Your task to perform on an android device: When is my next meeting? Image 0: 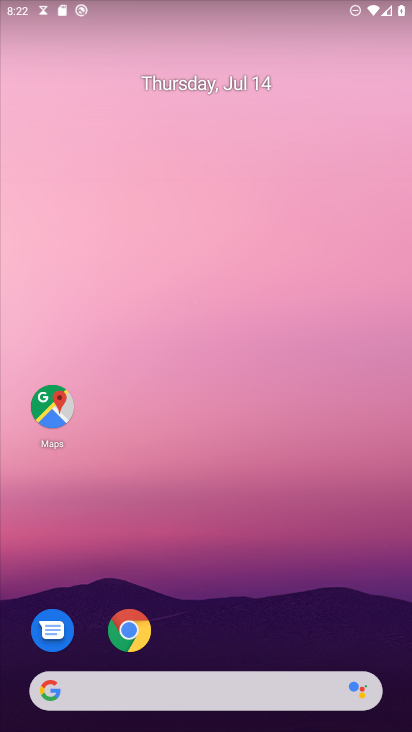
Step 0: drag from (255, 600) to (305, 91)
Your task to perform on an android device: When is my next meeting? Image 1: 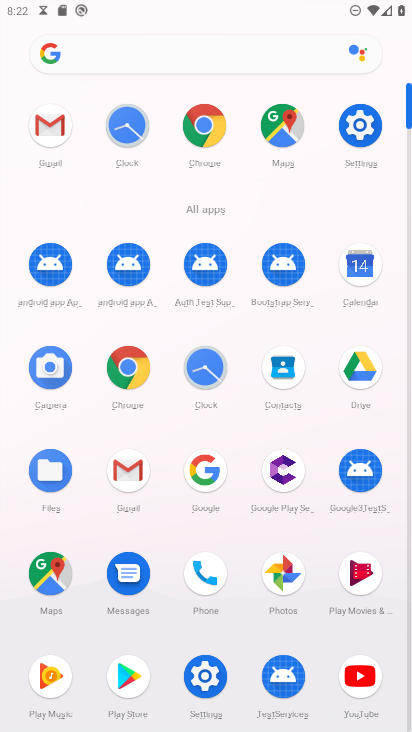
Step 1: click (367, 266)
Your task to perform on an android device: When is my next meeting? Image 2: 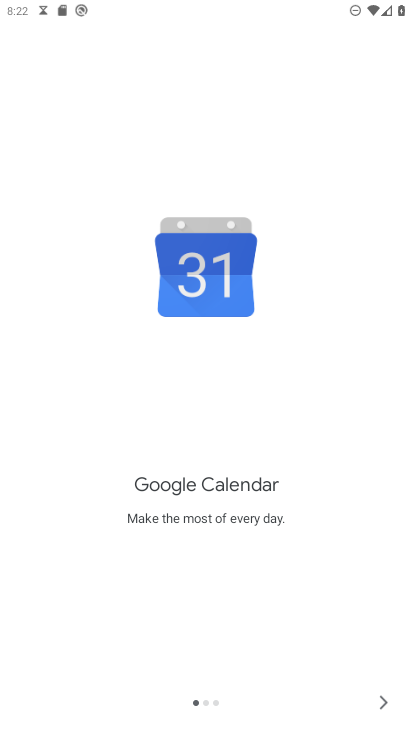
Step 2: click (380, 704)
Your task to perform on an android device: When is my next meeting? Image 3: 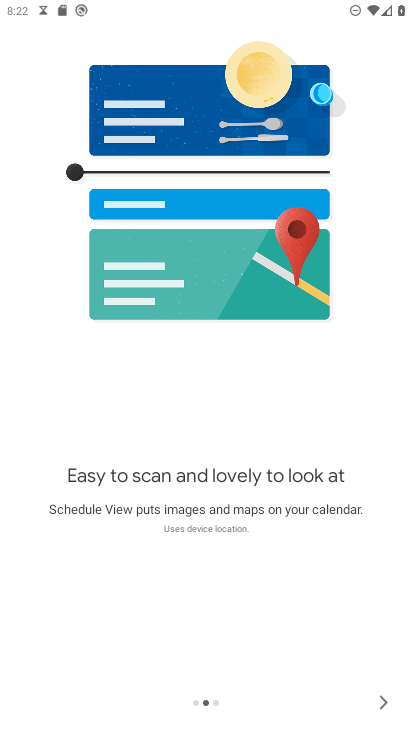
Step 3: click (380, 704)
Your task to perform on an android device: When is my next meeting? Image 4: 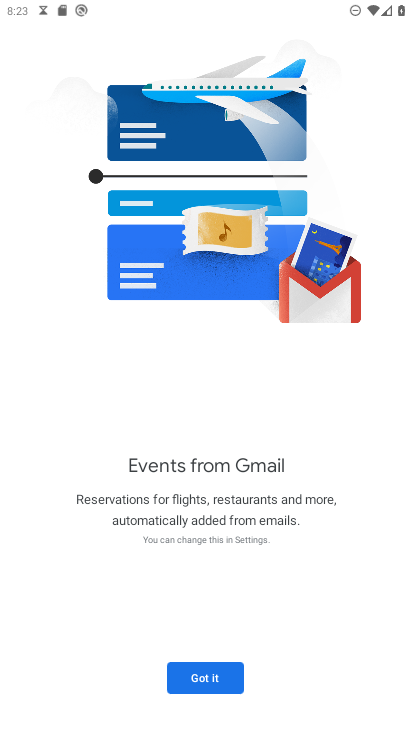
Step 4: click (218, 673)
Your task to perform on an android device: When is my next meeting? Image 5: 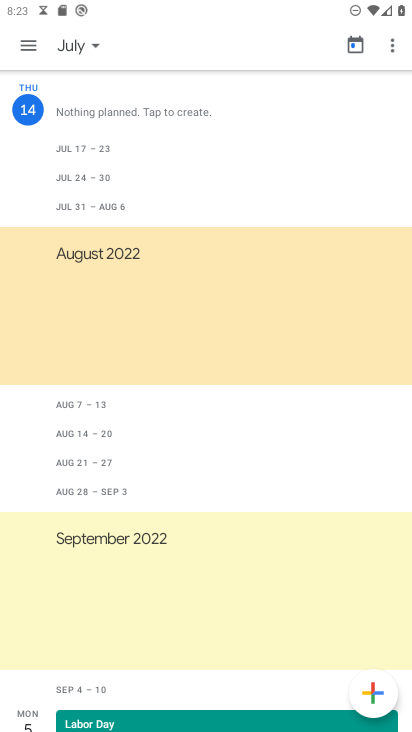
Step 5: click (83, 52)
Your task to perform on an android device: When is my next meeting? Image 6: 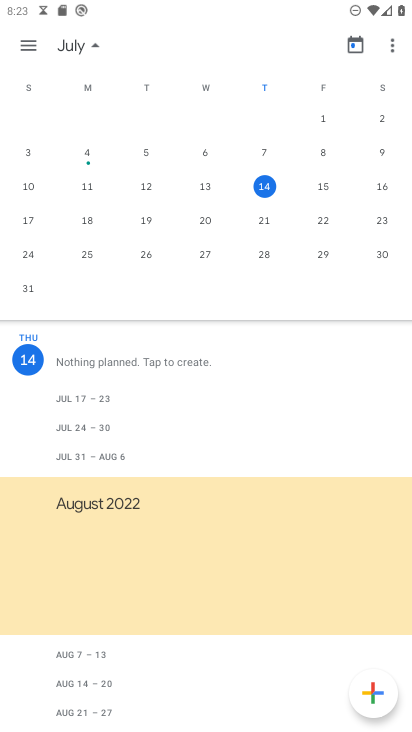
Step 6: task complete